Your task to perform on an android device: Go to sound settings Image 0: 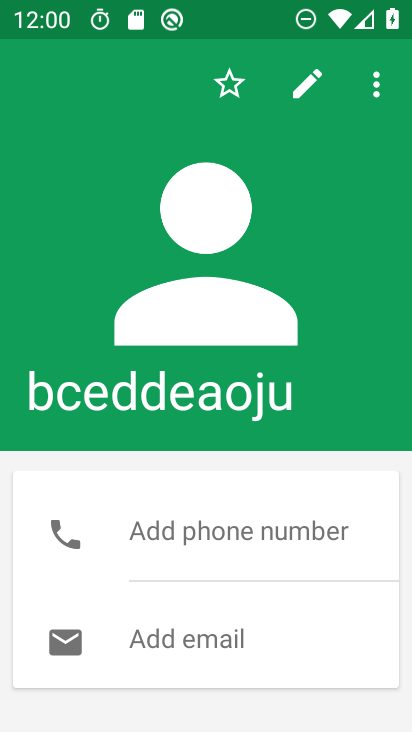
Step 0: drag from (197, 584) to (269, 272)
Your task to perform on an android device: Go to sound settings Image 1: 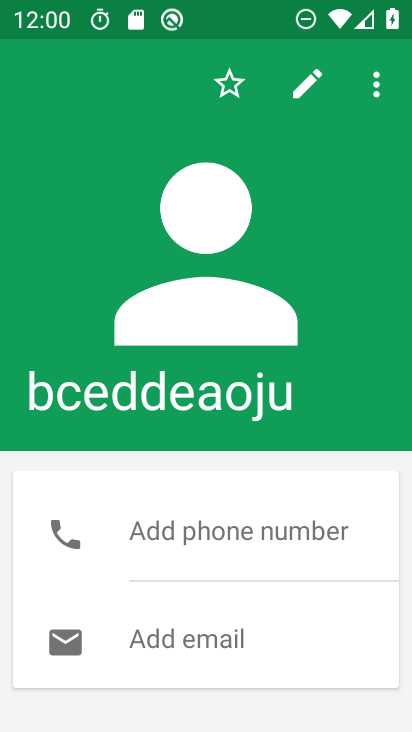
Step 1: press home button
Your task to perform on an android device: Go to sound settings Image 2: 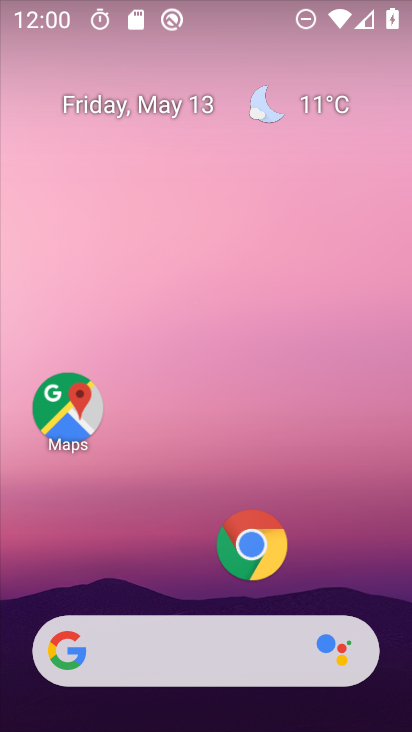
Step 2: drag from (202, 595) to (204, 133)
Your task to perform on an android device: Go to sound settings Image 3: 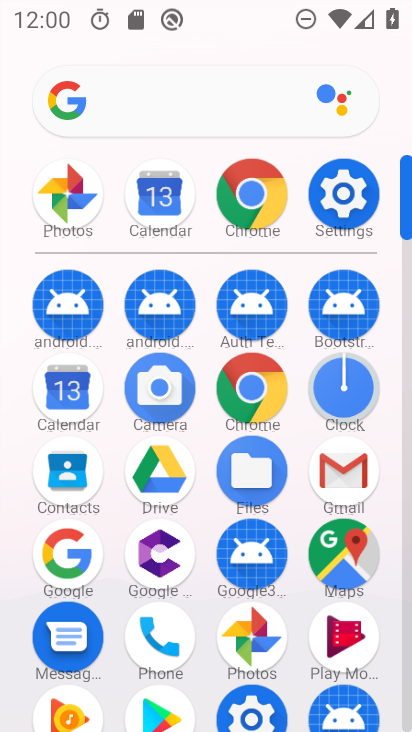
Step 3: click (339, 186)
Your task to perform on an android device: Go to sound settings Image 4: 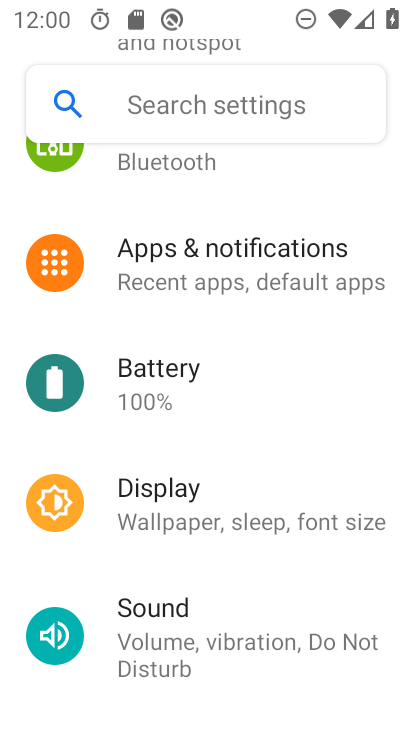
Step 4: click (198, 611)
Your task to perform on an android device: Go to sound settings Image 5: 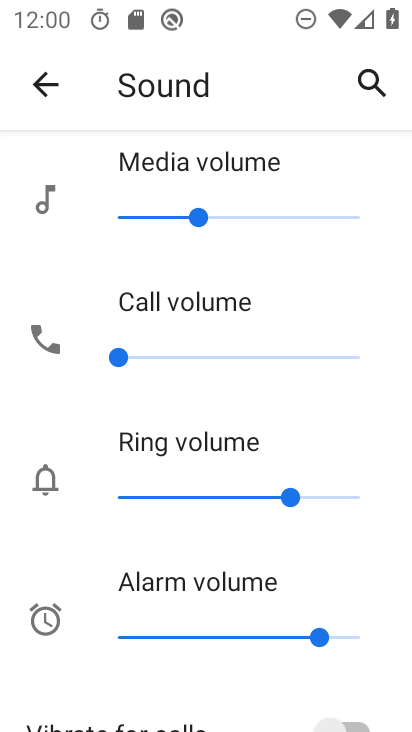
Step 5: drag from (180, 677) to (188, 141)
Your task to perform on an android device: Go to sound settings Image 6: 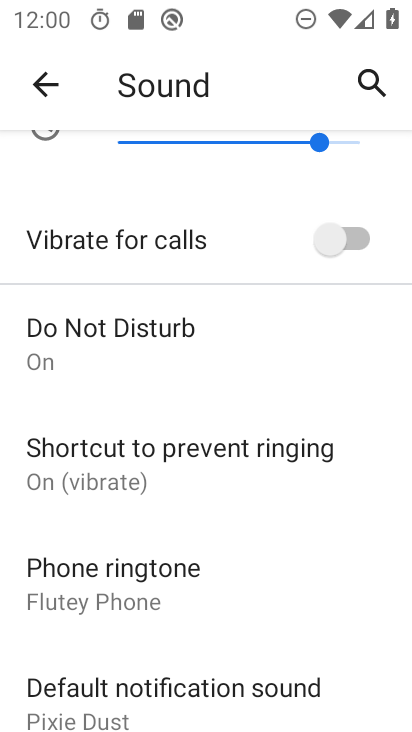
Step 6: drag from (184, 661) to (228, 177)
Your task to perform on an android device: Go to sound settings Image 7: 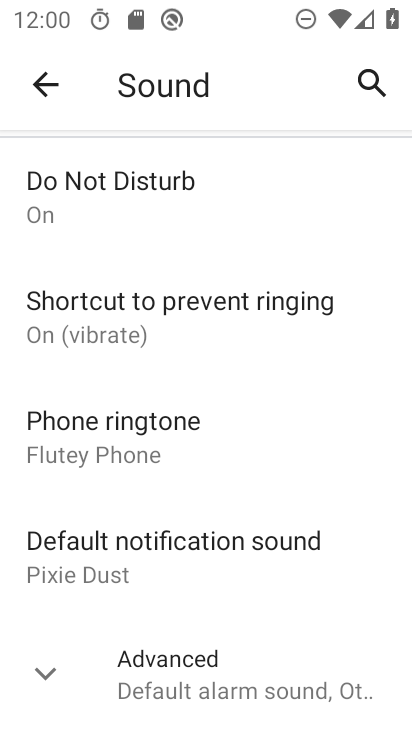
Step 7: click (45, 663)
Your task to perform on an android device: Go to sound settings Image 8: 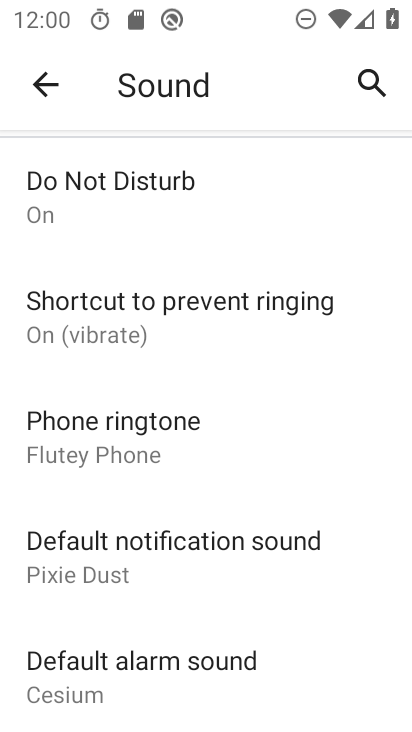
Step 8: task complete